Your task to perform on an android device: turn on wifi Image 0: 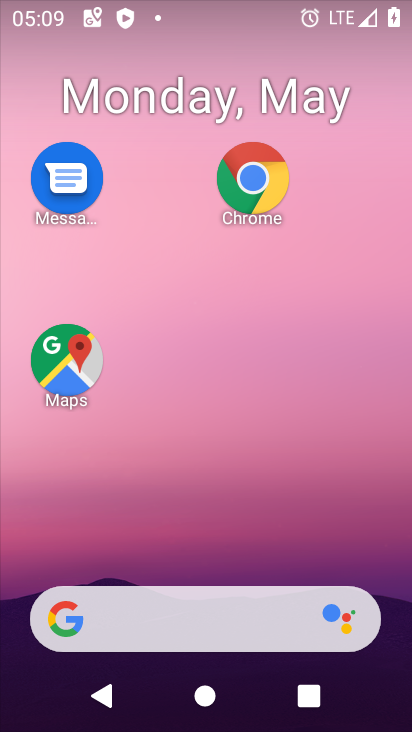
Step 0: drag from (252, 41) to (327, 5)
Your task to perform on an android device: turn on wifi Image 1: 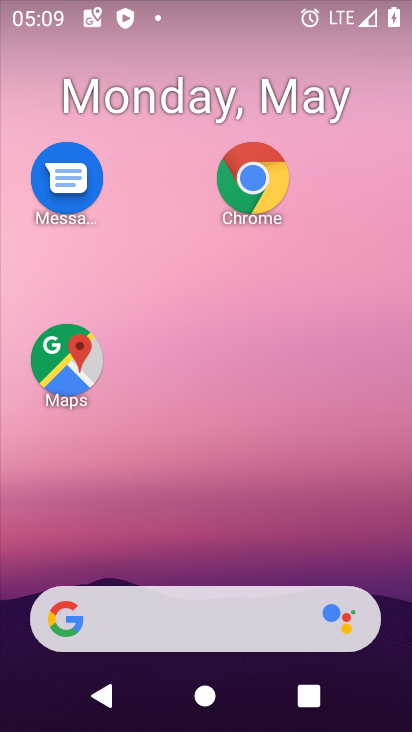
Step 1: drag from (185, 548) to (167, 17)
Your task to perform on an android device: turn on wifi Image 2: 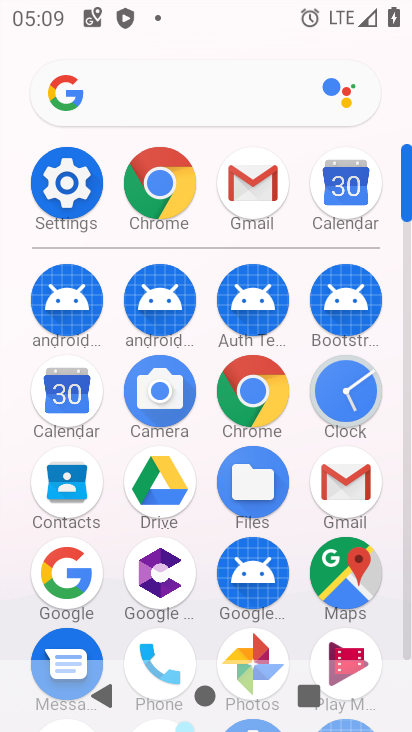
Step 2: click (63, 181)
Your task to perform on an android device: turn on wifi Image 3: 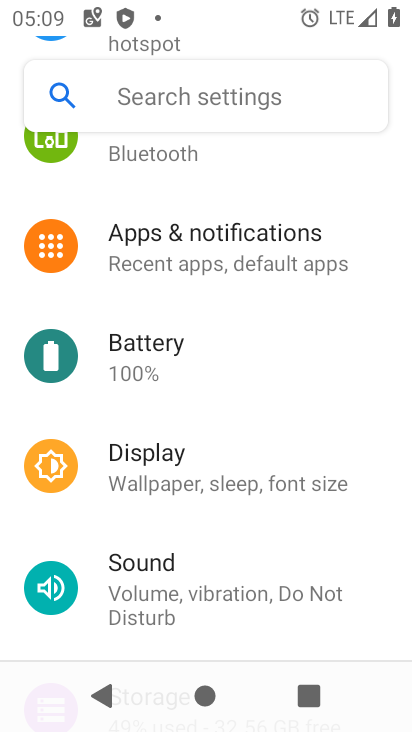
Step 3: drag from (140, 297) to (149, 555)
Your task to perform on an android device: turn on wifi Image 4: 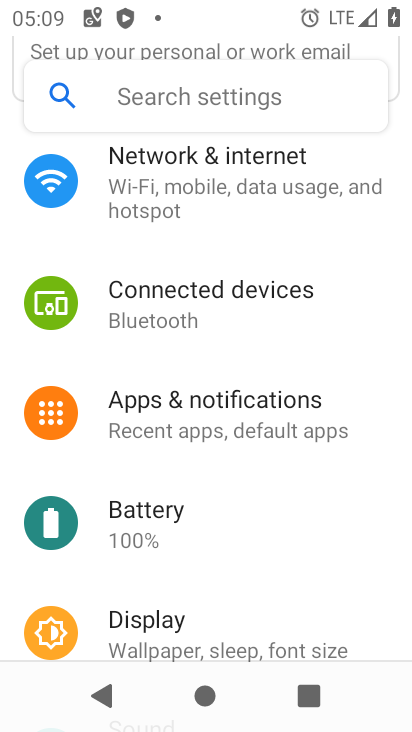
Step 4: click (151, 207)
Your task to perform on an android device: turn on wifi Image 5: 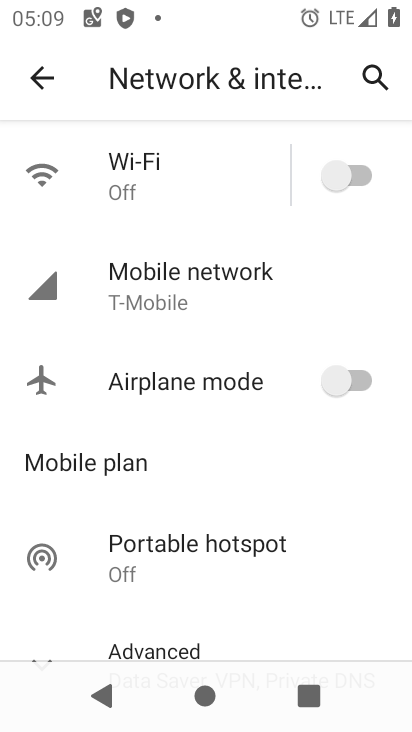
Step 5: task complete